Your task to perform on an android device: Go to display settings Image 0: 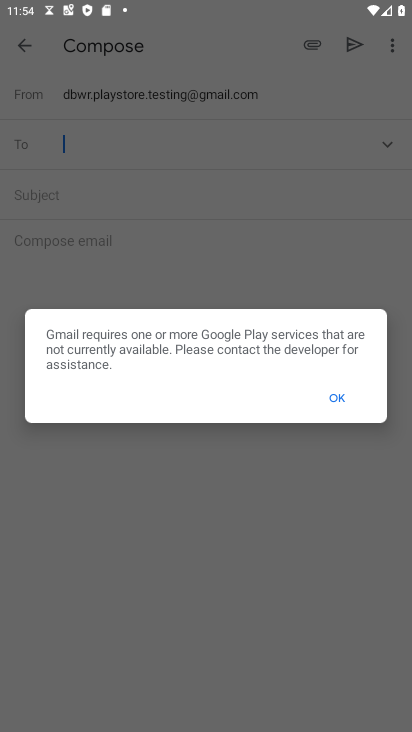
Step 0: press home button
Your task to perform on an android device: Go to display settings Image 1: 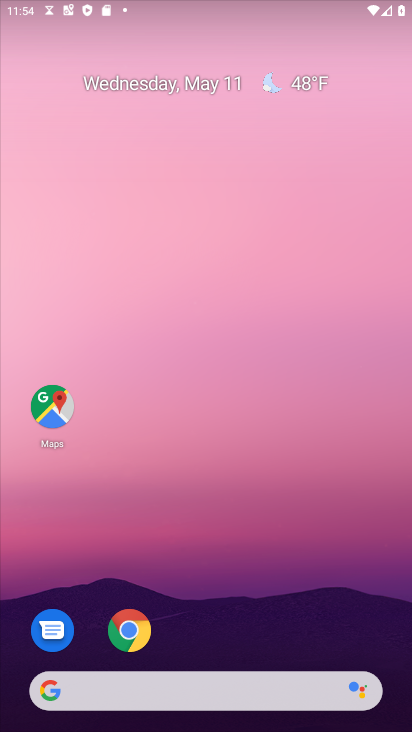
Step 1: drag from (226, 720) to (247, 141)
Your task to perform on an android device: Go to display settings Image 2: 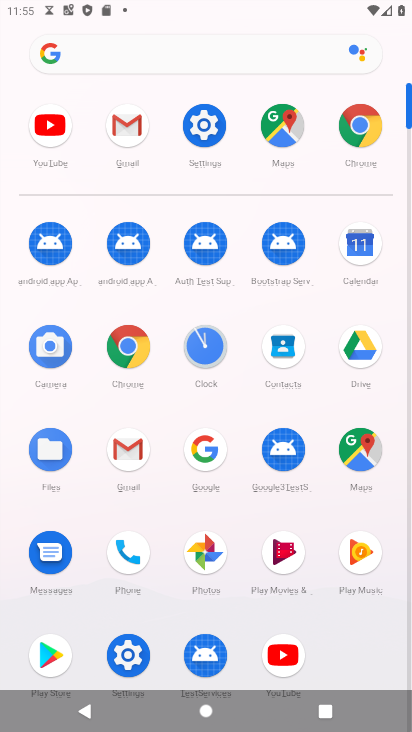
Step 2: click (207, 123)
Your task to perform on an android device: Go to display settings Image 3: 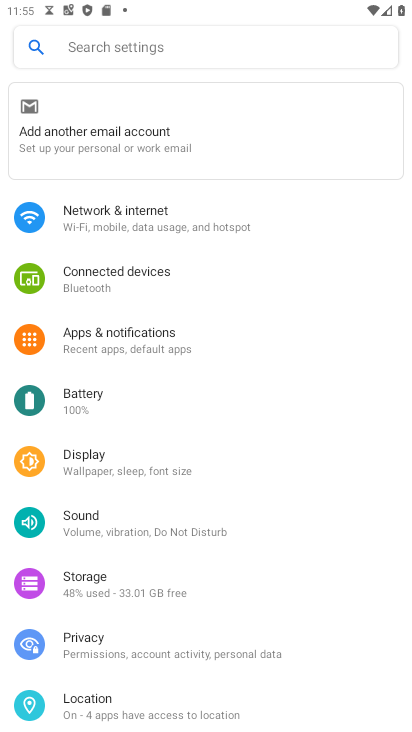
Step 3: click (97, 463)
Your task to perform on an android device: Go to display settings Image 4: 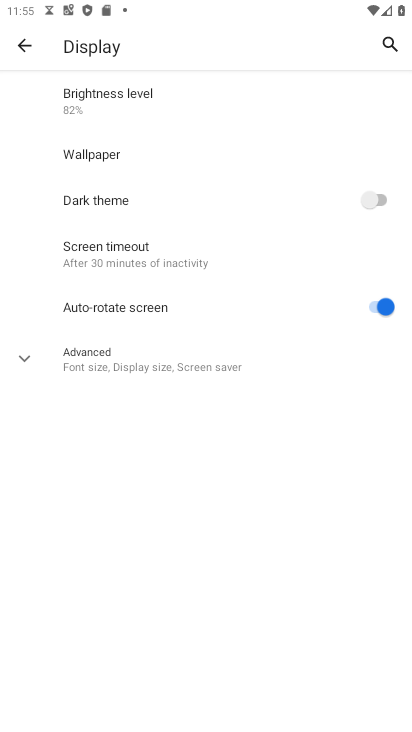
Step 4: task complete